Your task to perform on an android device: allow cookies in the chrome app Image 0: 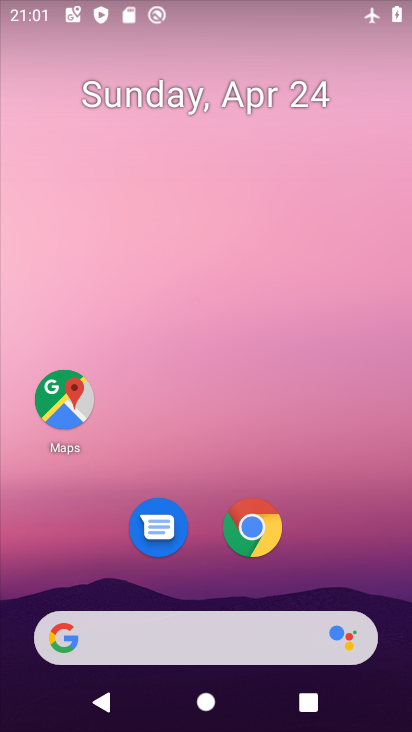
Step 0: click (256, 535)
Your task to perform on an android device: allow cookies in the chrome app Image 1: 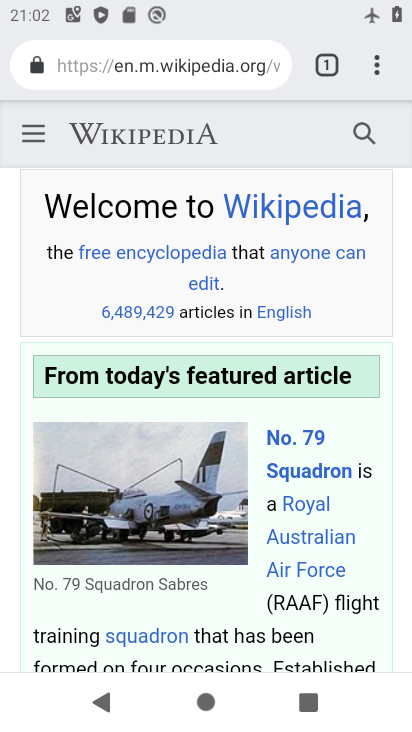
Step 1: click (375, 68)
Your task to perform on an android device: allow cookies in the chrome app Image 2: 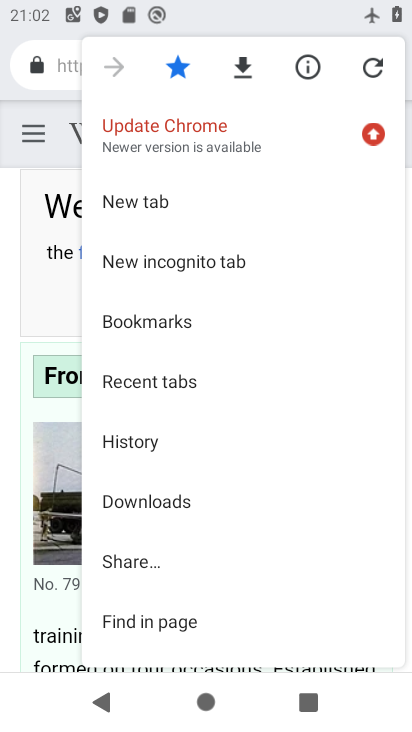
Step 2: drag from (276, 568) to (268, 128)
Your task to perform on an android device: allow cookies in the chrome app Image 3: 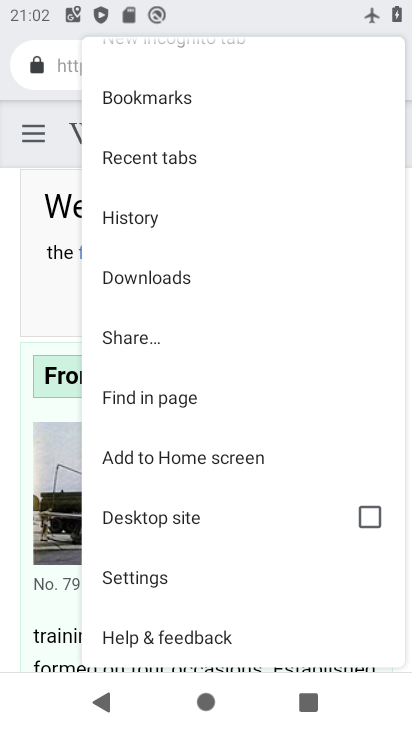
Step 3: click (138, 582)
Your task to perform on an android device: allow cookies in the chrome app Image 4: 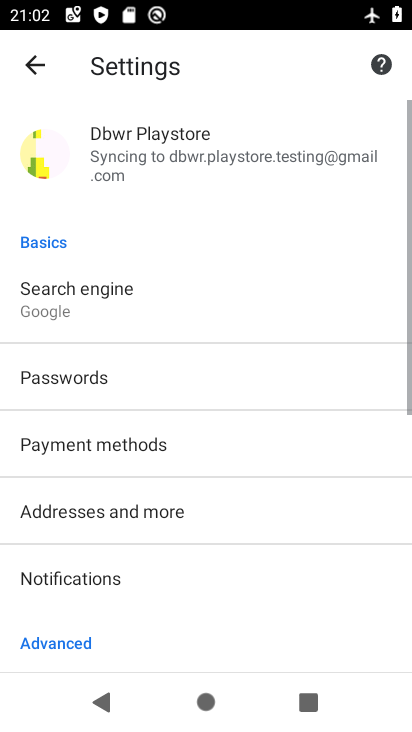
Step 4: drag from (138, 582) to (153, 150)
Your task to perform on an android device: allow cookies in the chrome app Image 5: 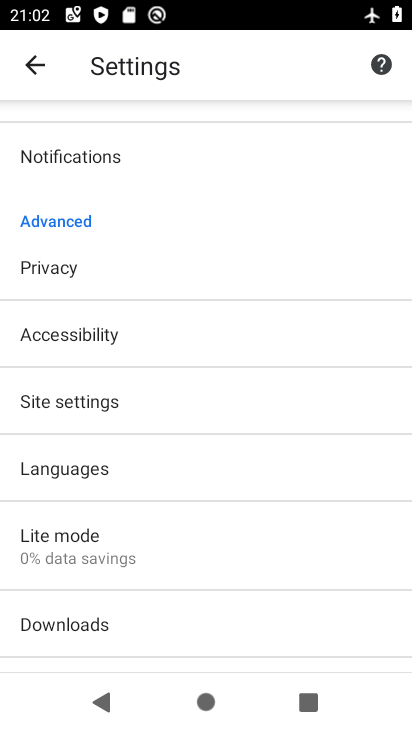
Step 5: click (57, 404)
Your task to perform on an android device: allow cookies in the chrome app Image 6: 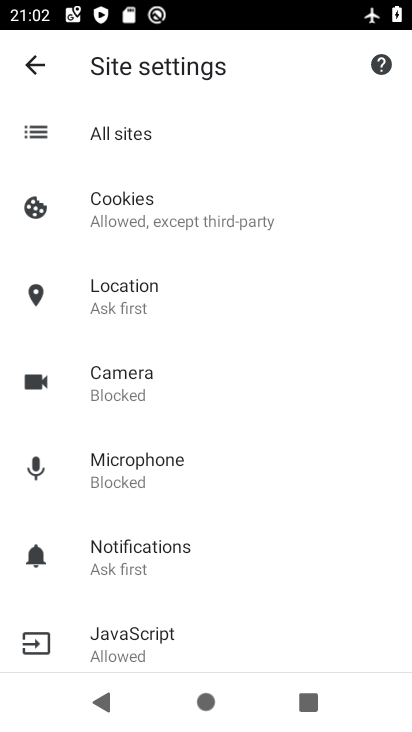
Step 6: click (116, 216)
Your task to perform on an android device: allow cookies in the chrome app Image 7: 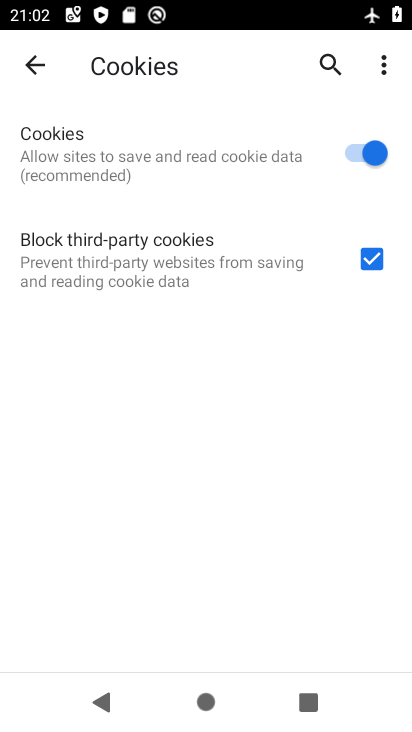
Step 7: click (364, 256)
Your task to perform on an android device: allow cookies in the chrome app Image 8: 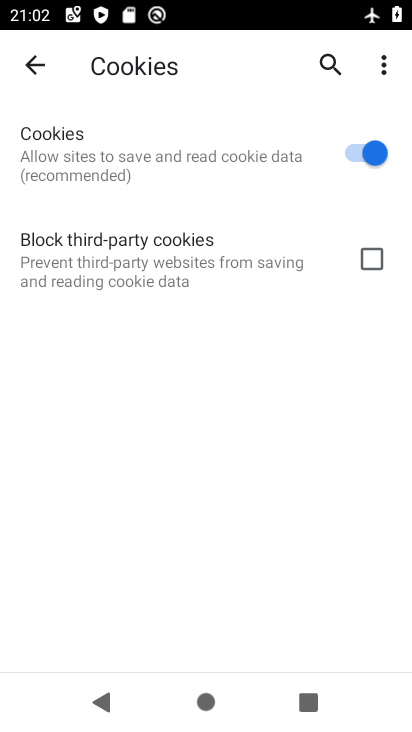
Step 8: task complete